Your task to perform on an android device: check out phone information Image 0: 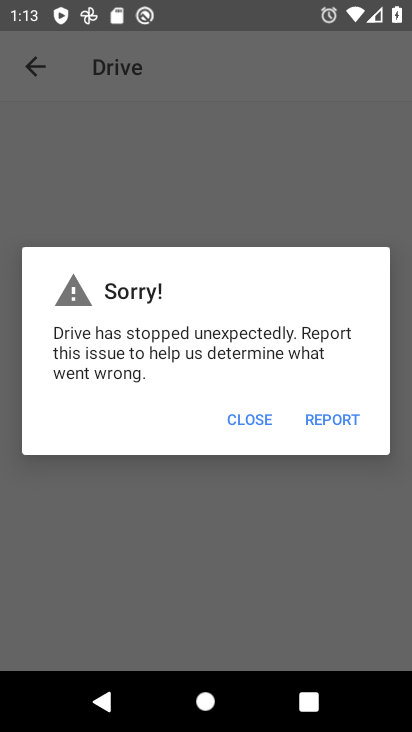
Step 0: press home button
Your task to perform on an android device: check out phone information Image 1: 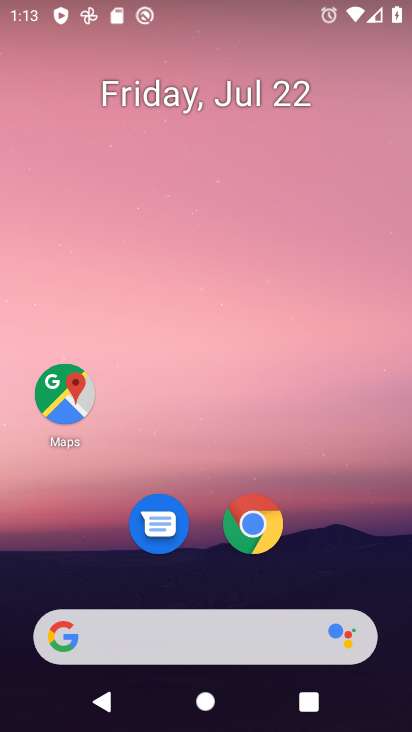
Step 1: drag from (211, 625) to (296, 167)
Your task to perform on an android device: check out phone information Image 2: 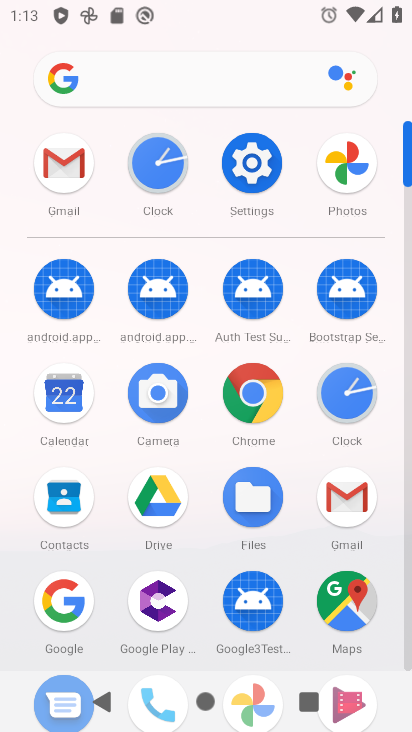
Step 2: click (250, 168)
Your task to perform on an android device: check out phone information Image 3: 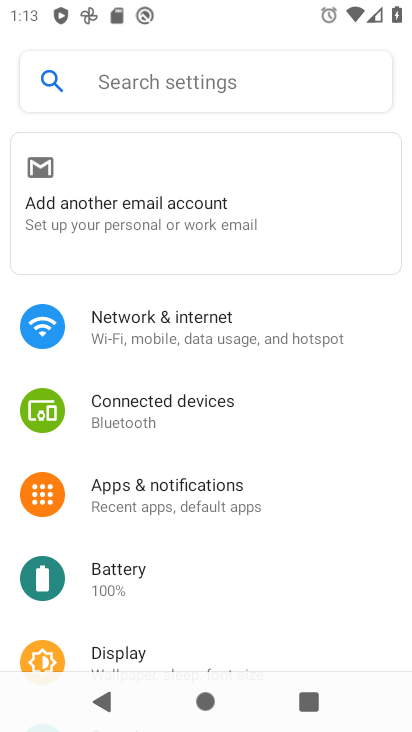
Step 3: drag from (236, 619) to (395, 86)
Your task to perform on an android device: check out phone information Image 4: 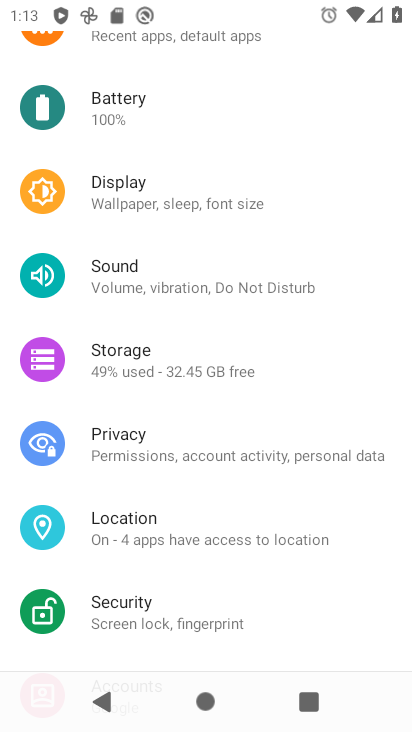
Step 4: drag from (235, 600) to (403, 157)
Your task to perform on an android device: check out phone information Image 5: 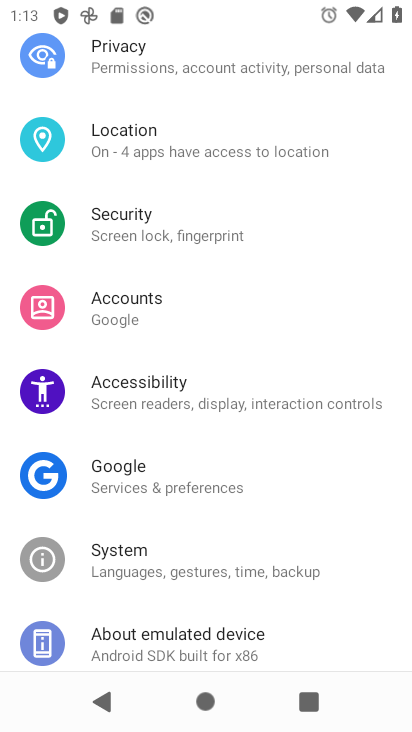
Step 5: drag from (215, 596) to (369, 157)
Your task to perform on an android device: check out phone information Image 6: 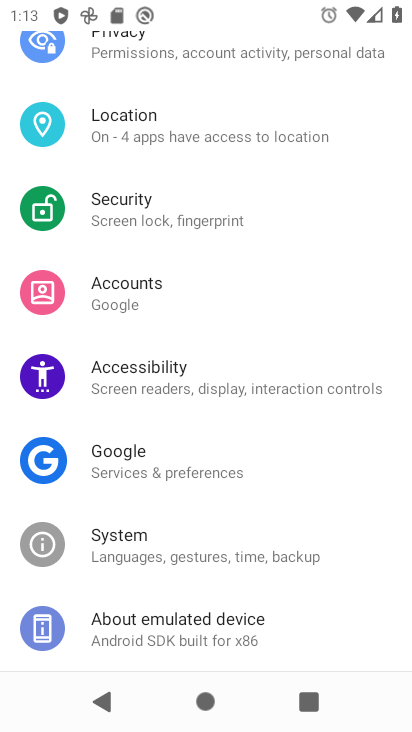
Step 6: click (196, 628)
Your task to perform on an android device: check out phone information Image 7: 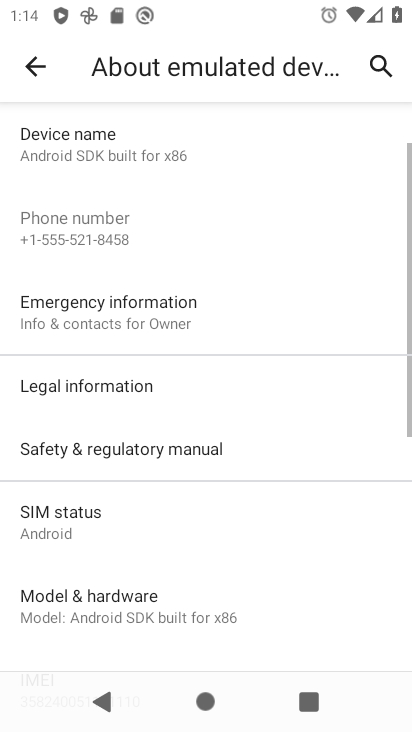
Step 7: task complete